Your task to perform on an android device: Add duracell triple a to the cart on costco, then select checkout. Image 0: 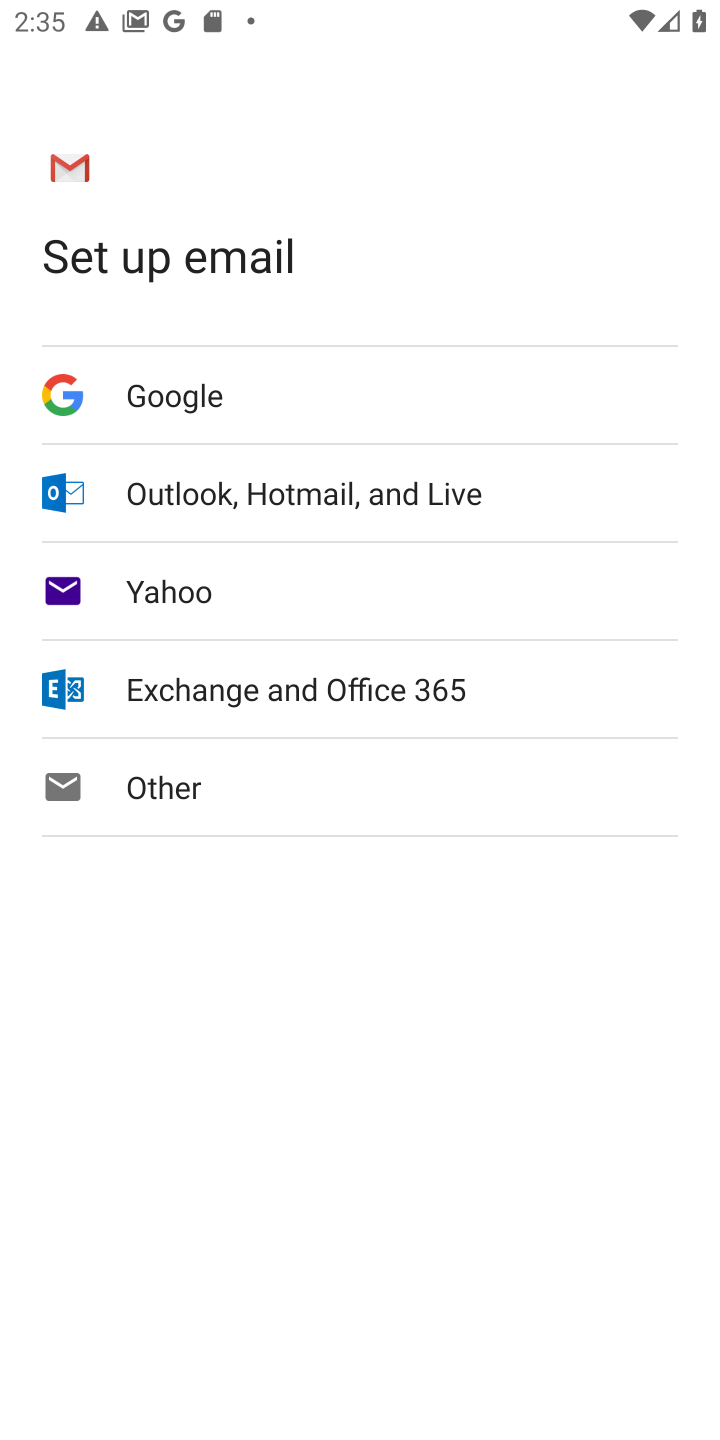
Step 0: press home button
Your task to perform on an android device: Add duracell triple a to the cart on costco, then select checkout. Image 1: 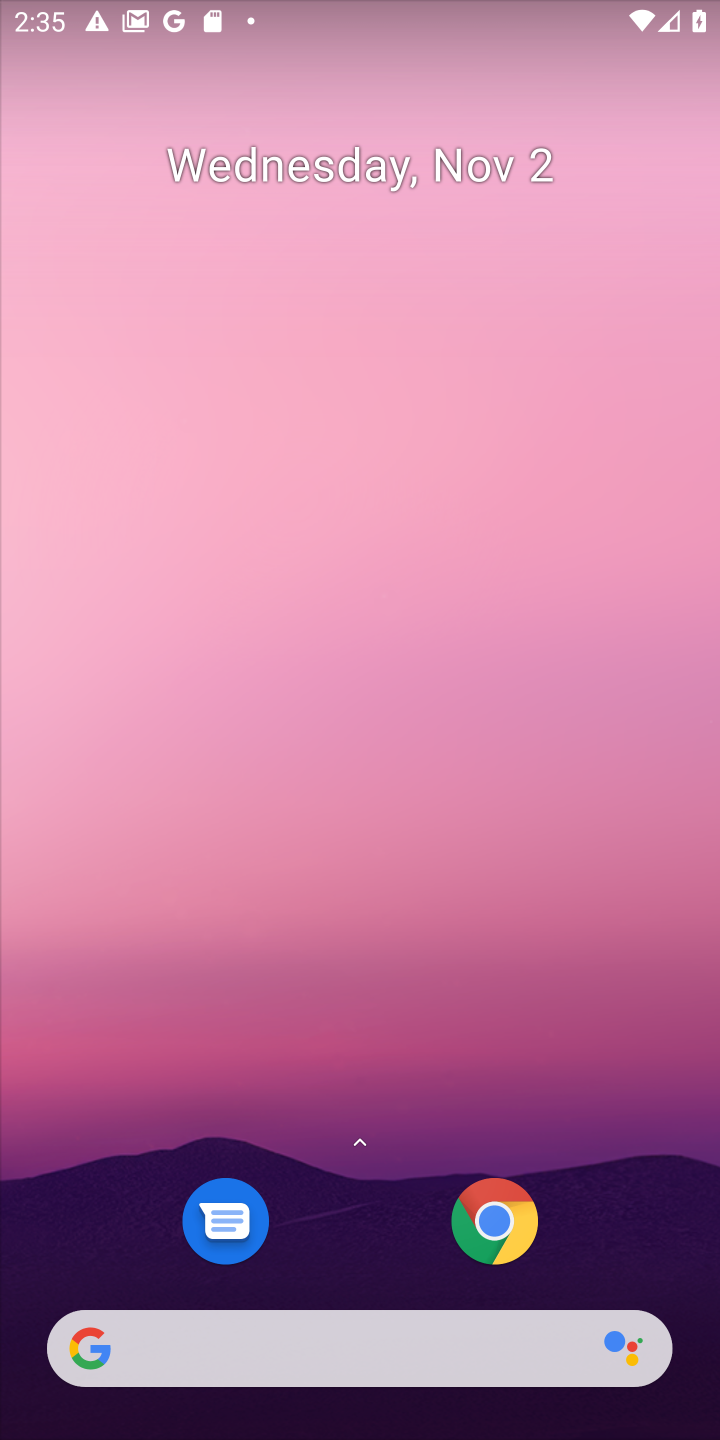
Step 1: click (223, 1376)
Your task to perform on an android device: Add duracell triple a to the cart on costco, then select checkout. Image 2: 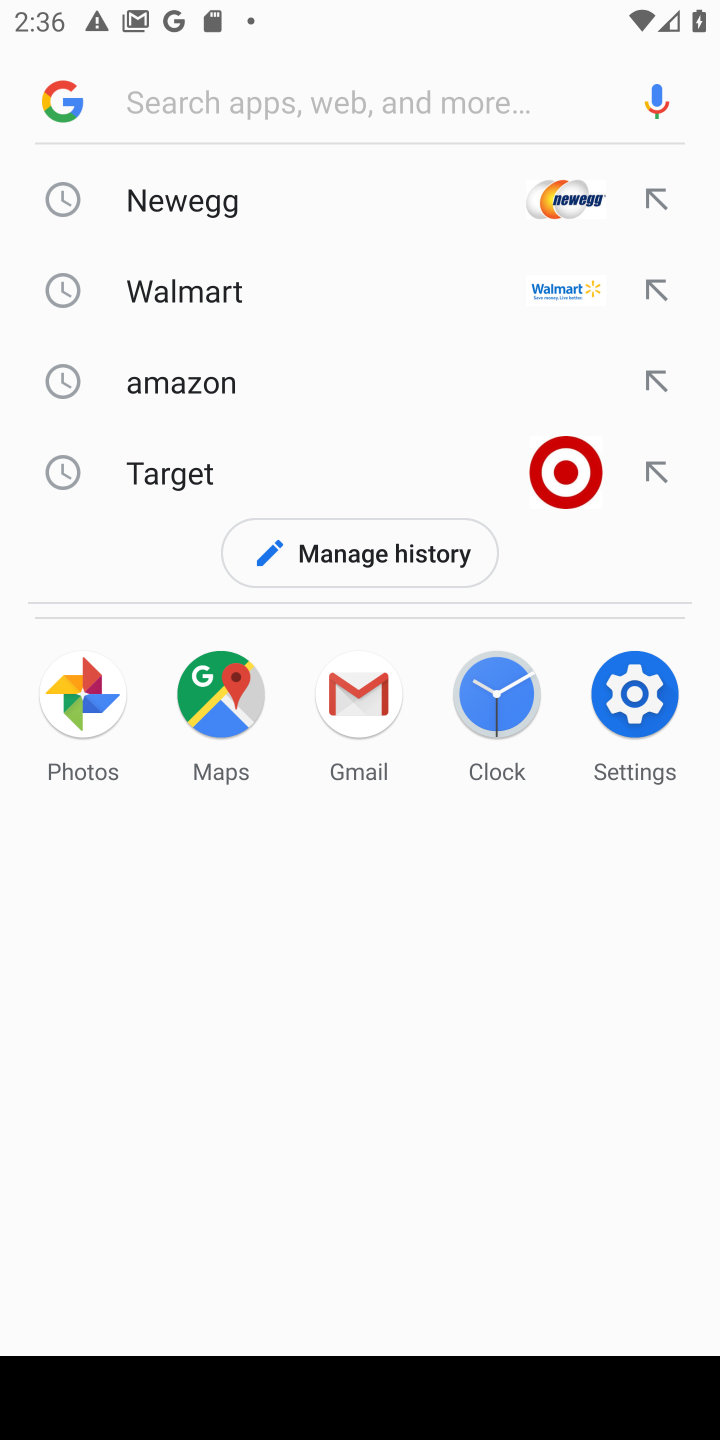
Step 2: type "duracejj"
Your task to perform on an android device: Add duracell triple a to the cart on costco, then select checkout. Image 3: 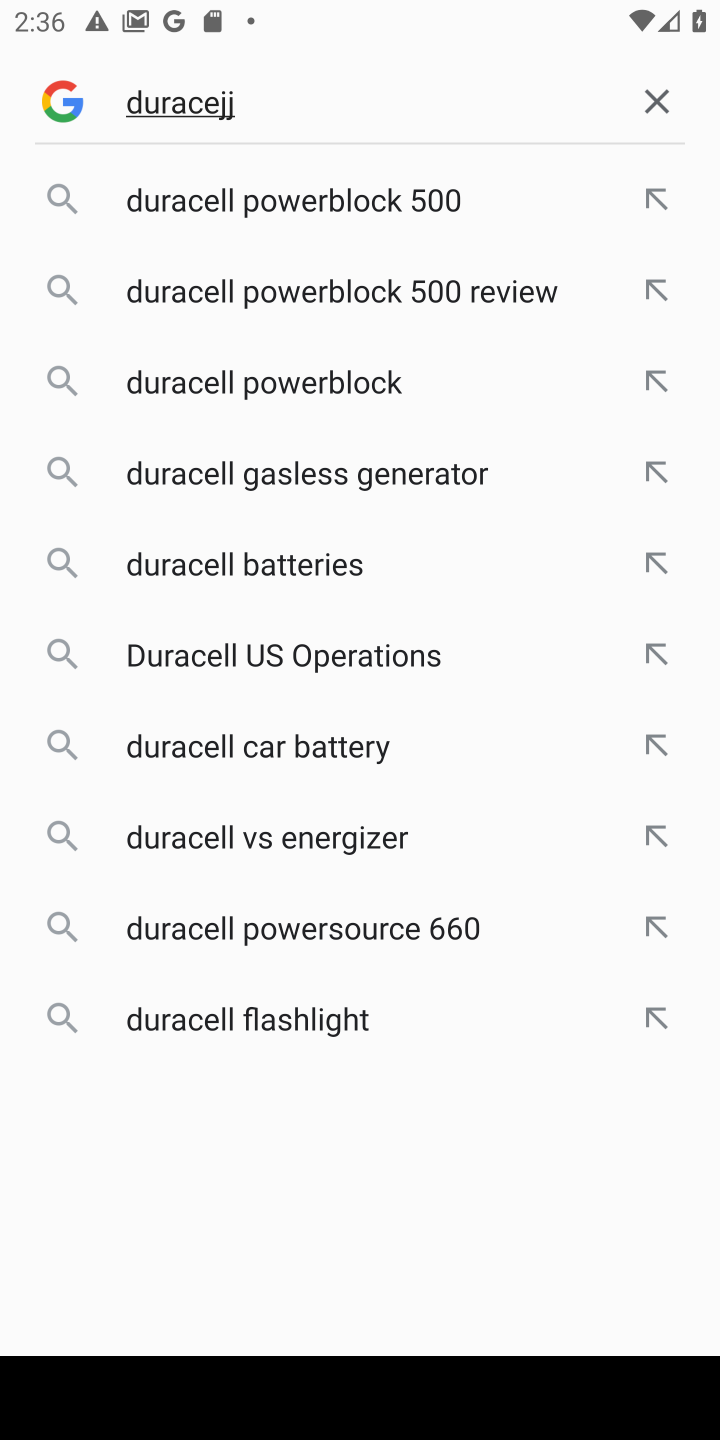
Step 3: click (256, 192)
Your task to perform on an android device: Add duracell triple a to the cart on costco, then select checkout. Image 4: 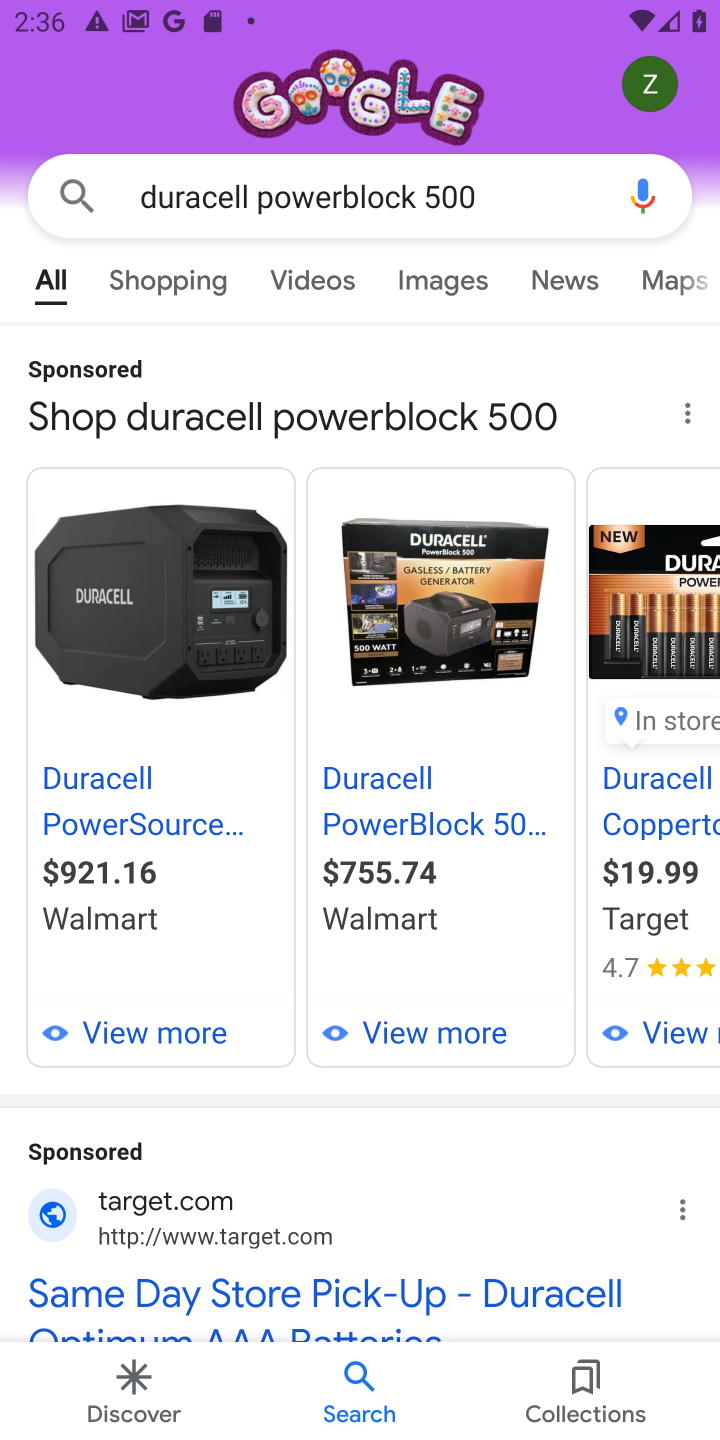
Step 4: click (212, 839)
Your task to perform on an android device: Add duracell triple a to the cart on costco, then select checkout. Image 5: 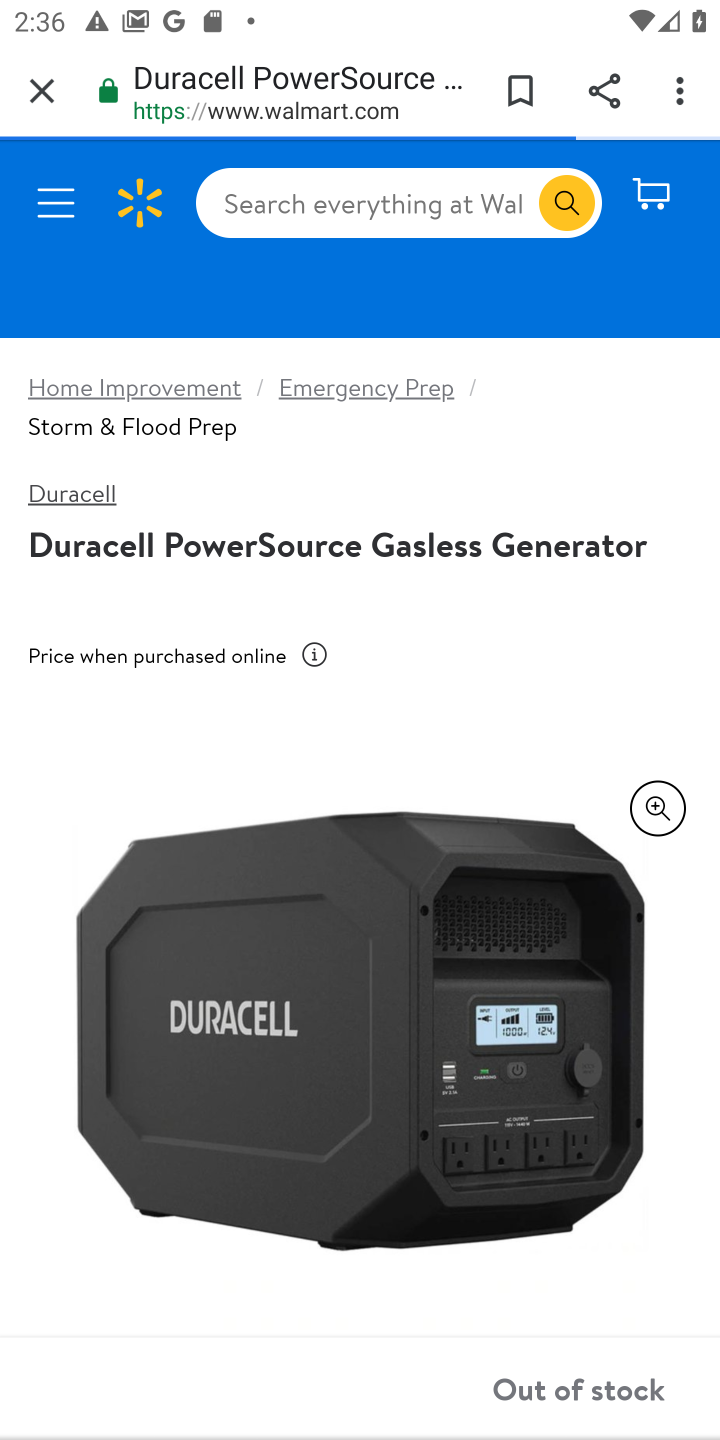
Step 5: drag from (255, 1119) to (197, 482)
Your task to perform on an android device: Add duracell triple a to the cart on costco, then select checkout. Image 6: 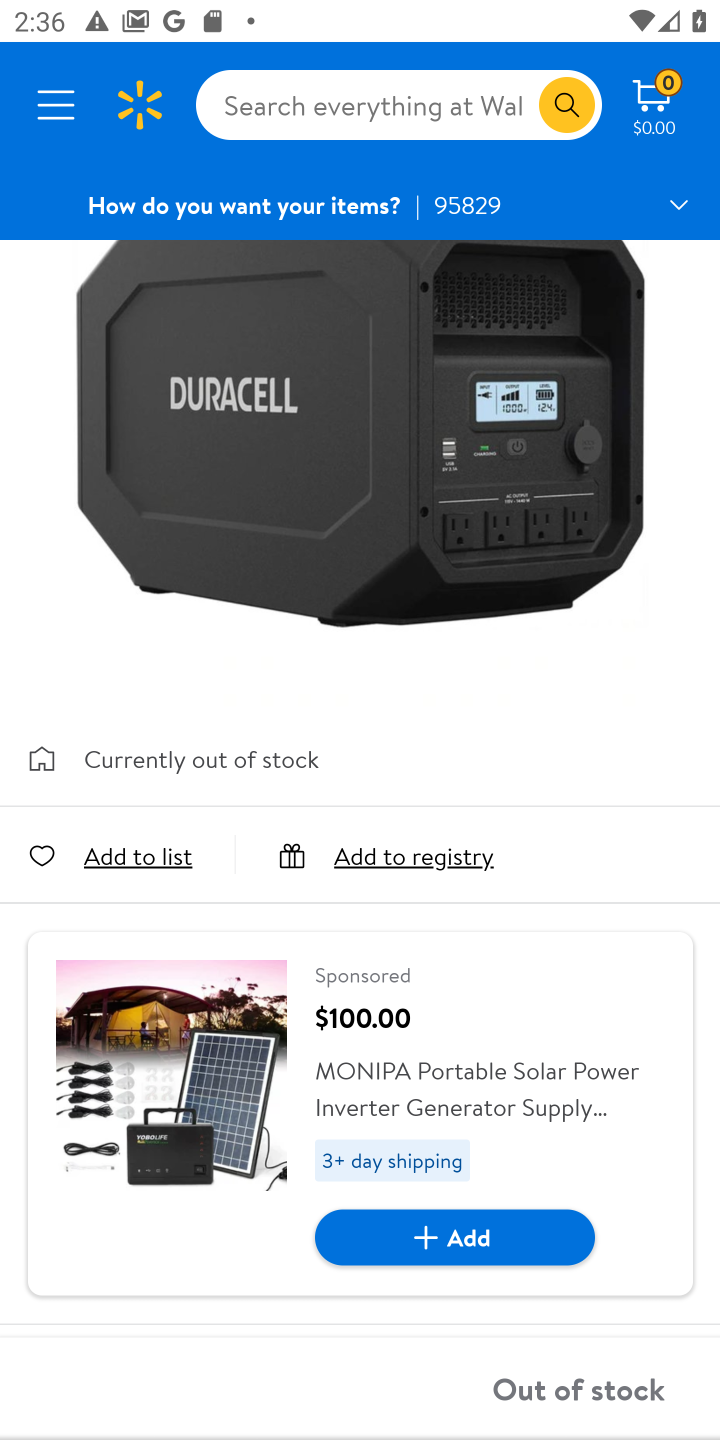
Step 6: click (479, 1224)
Your task to perform on an android device: Add duracell triple a to the cart on costco, then select checkout. Image 7: 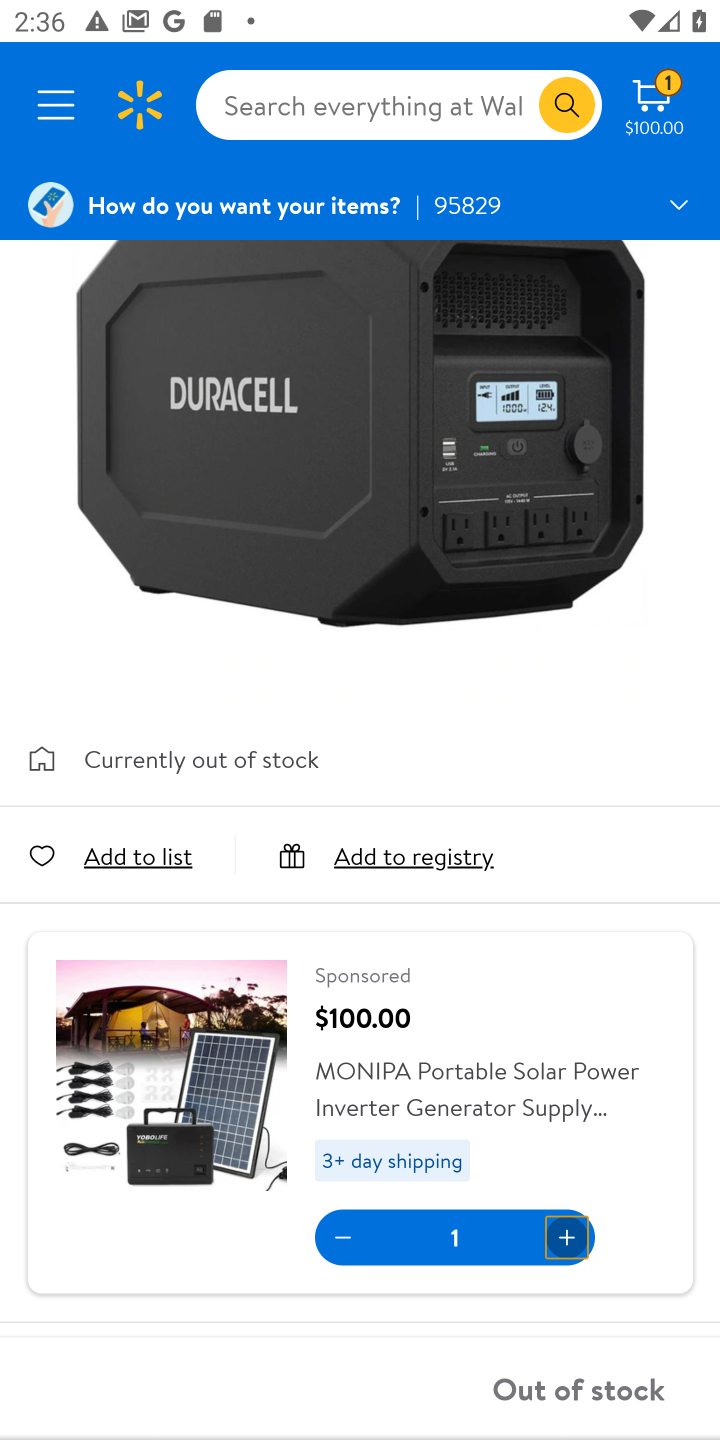
Step 7: task complete